Your task to perform on an android device: open app "Contacts" (install if not already installed) Image 0: 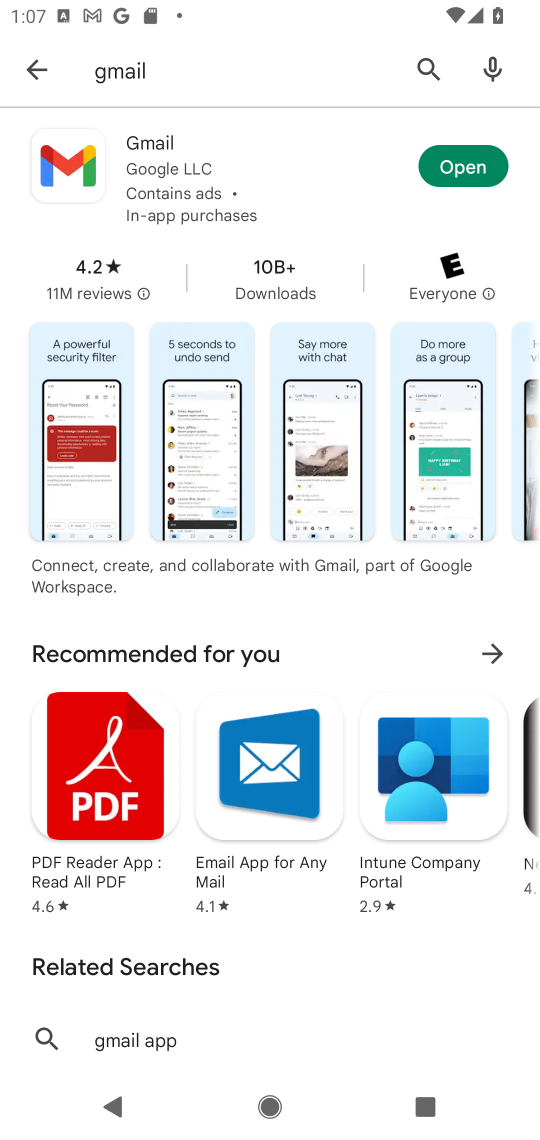
Step 0: press home button
Your task to perform on an android device: open app "Contacts" (install if not already installed) Image 1: 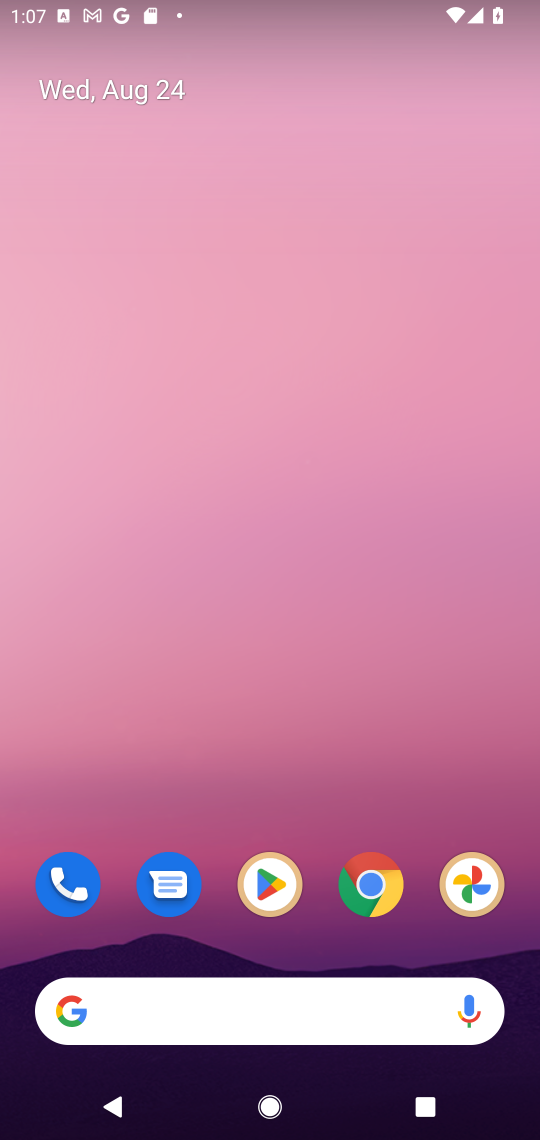
Step 1: drag from (294, 978) to (317, 233)
Your task to perform on an android device: open app "Contacts" (install if not already installed) Image 2: 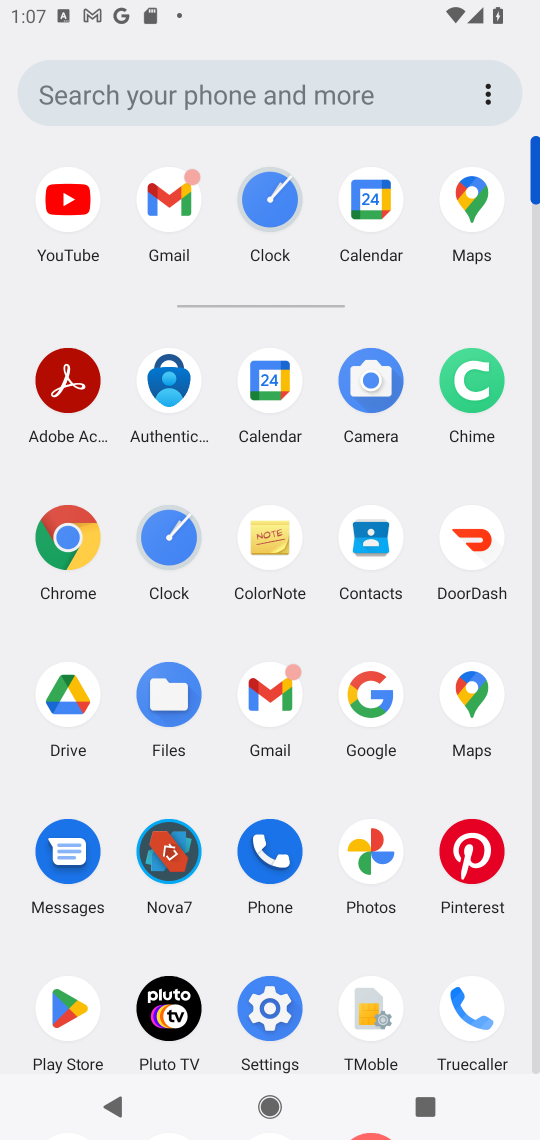
Step 2: click (70, 1003)
Your task to perform on an android device: open app "Contacts" (install if not already installed) Image 3: 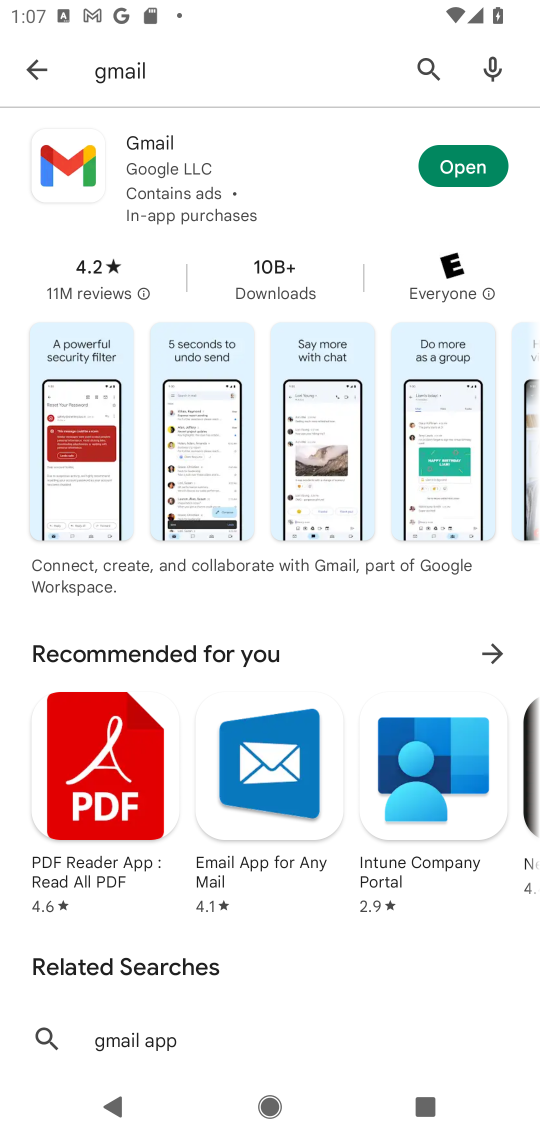
Step 3: press back button
Your task to perform on an android device: open app "Contacts" (install if not already installed) Image 4: 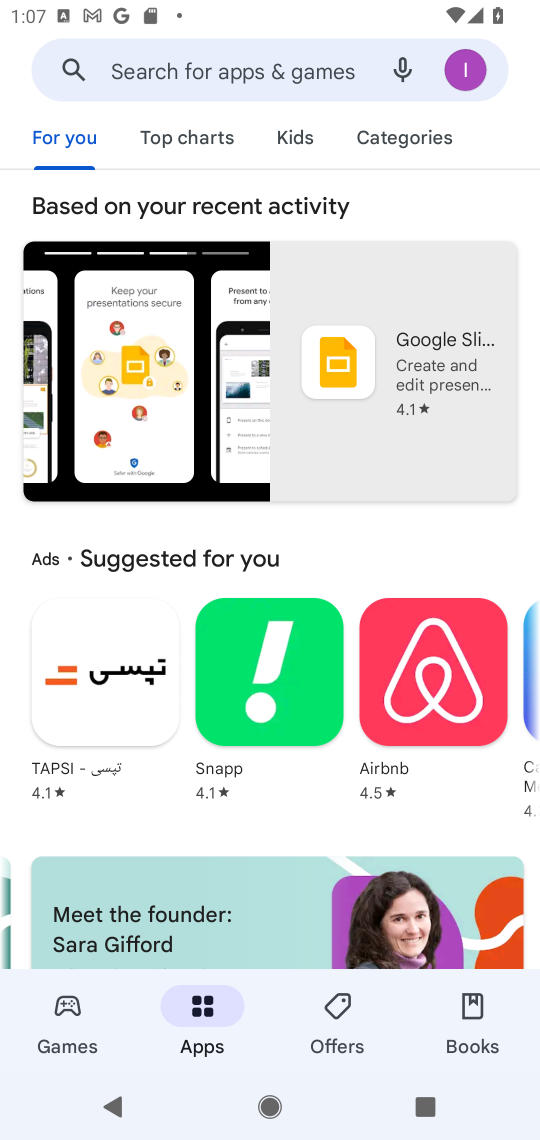
Step 4: click (261, 62)
Your task to perform on an android device: open app "Contacts" (install if not already installed) Image 5: 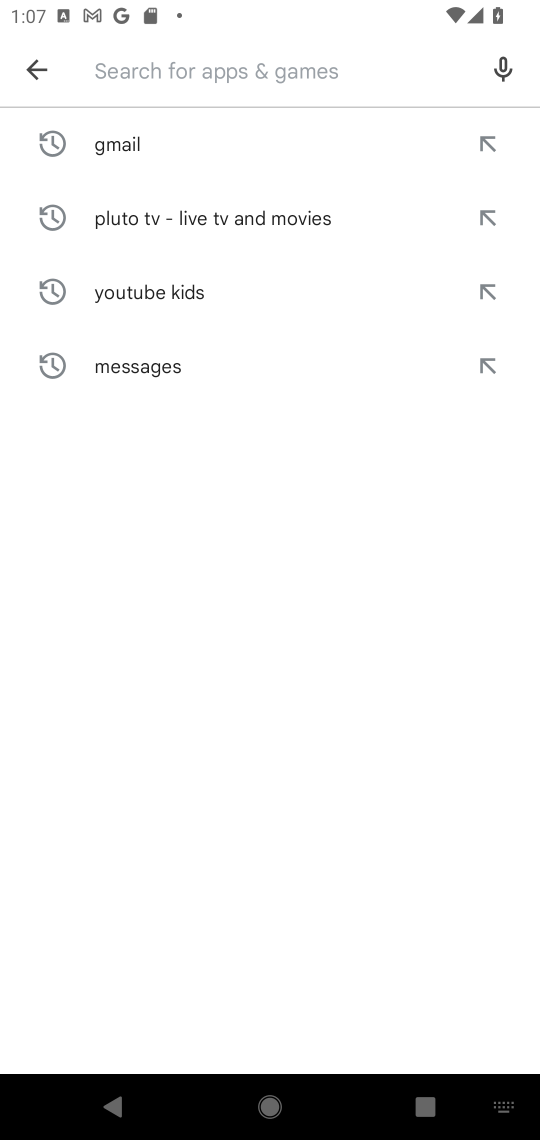
Step 5: type "Contacts"
Your task to perform on an android device: open app "Contacts" (install if not already installed) Image 6: 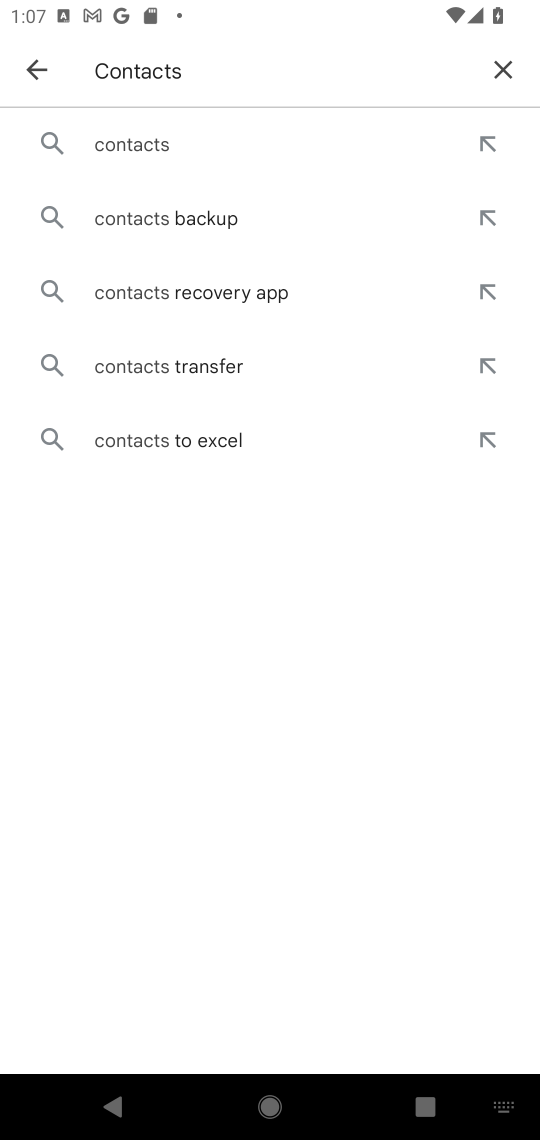
Step 6: click (151, 147)
Your task to perform on an android device: open app "Contacts" (install if not already installed) Image 7: 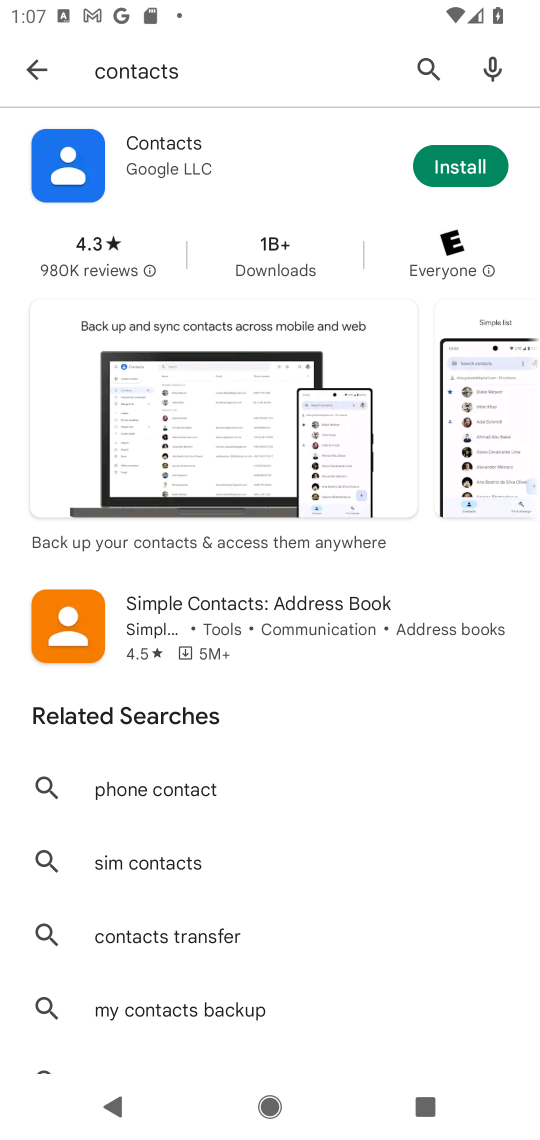
Step 7: click (462, 166)
Your task to perform on an android device: open app "Contacts" (install if not already installed) Image 8: 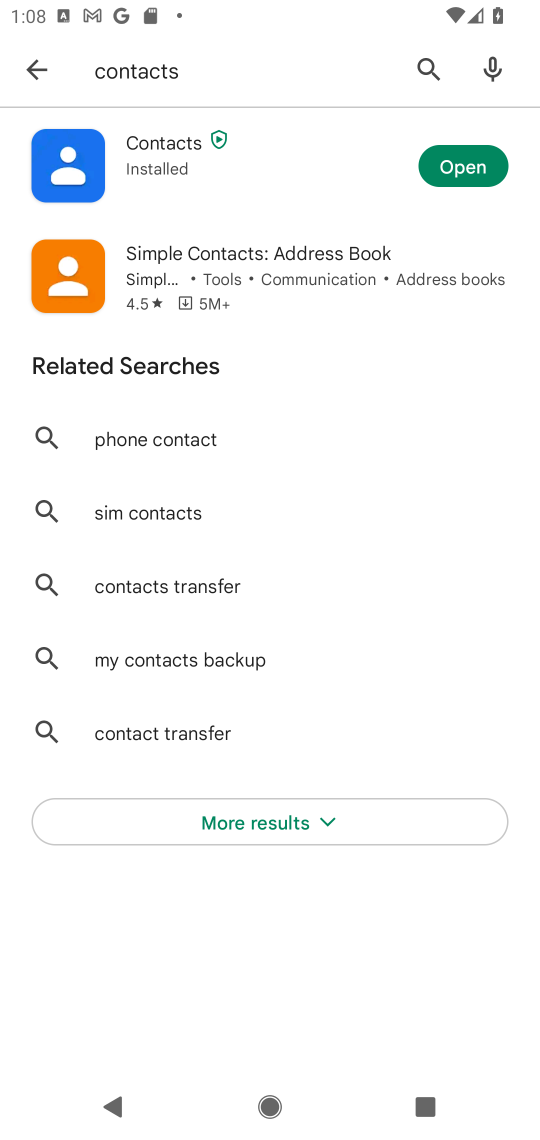
Step 8: click (462, 166)
Your task to perform on an android device: open app "Contacts" (install if not already installed) Image 9: 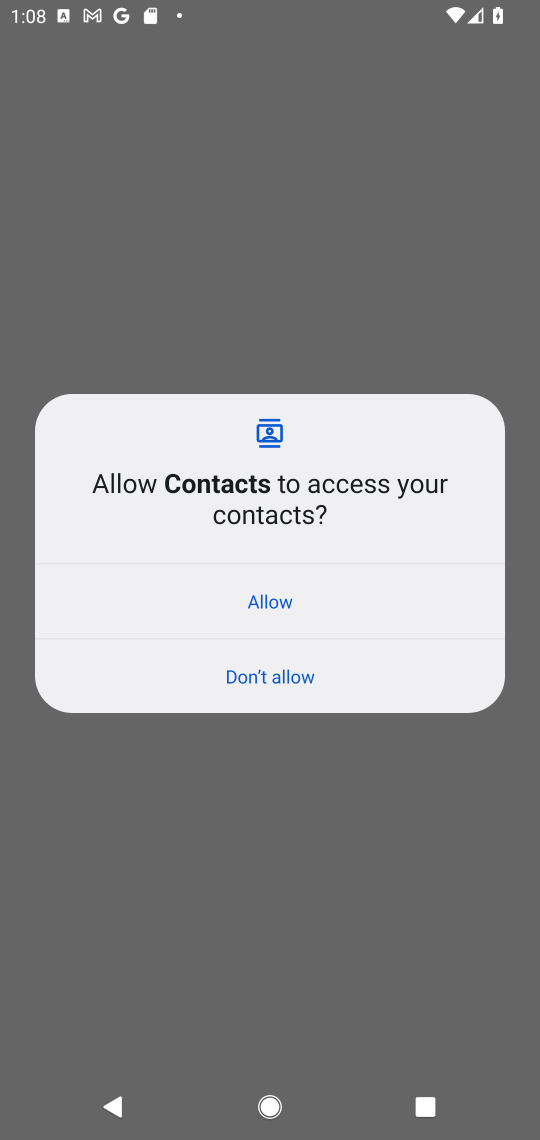
Step 9: click (249, 588)
Your task to perform on an android device: open app "Contacts" (install if not already installed) Image 10: 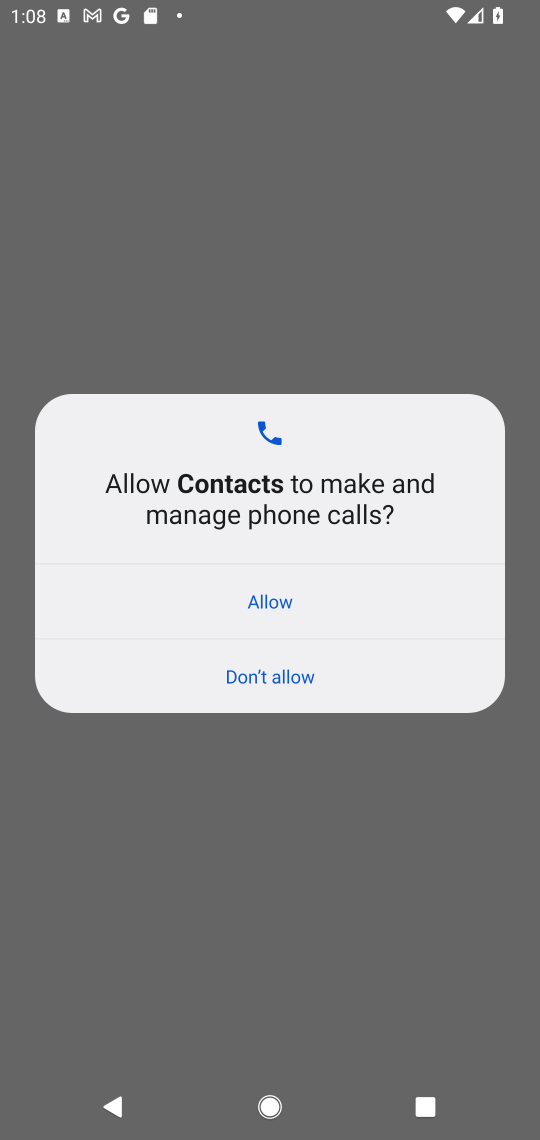
Step 10: click (249, 588)
Your task to perform on an android device: open app "Contacts" (install if not already installed) Image 11: 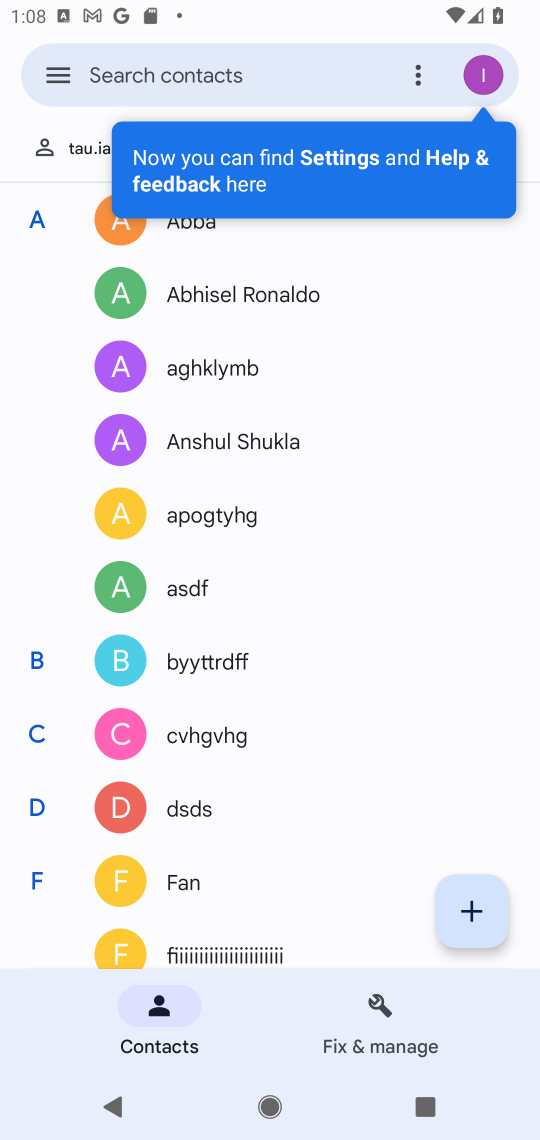
Step 11: task complete